Your task to perform on an android device: open app "Life360: Find Family & Friends" (install if not already installed) and enter user name: "gusts@gmail.com" and password: "assurers" Image 0: 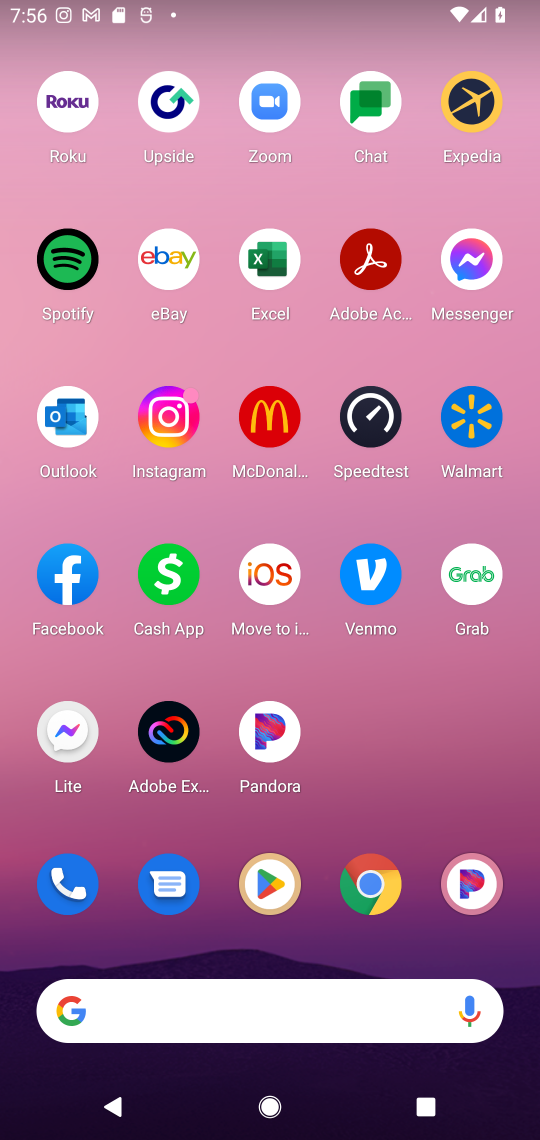
Step 0: drag from (212, 1000) to (359, 259)
Your task to perform on an android device: open app "Life360: Find Family & Friends" (install if not already installed) and enter user name: "gusts@gmail.com" and password: "assurers" Image 1: 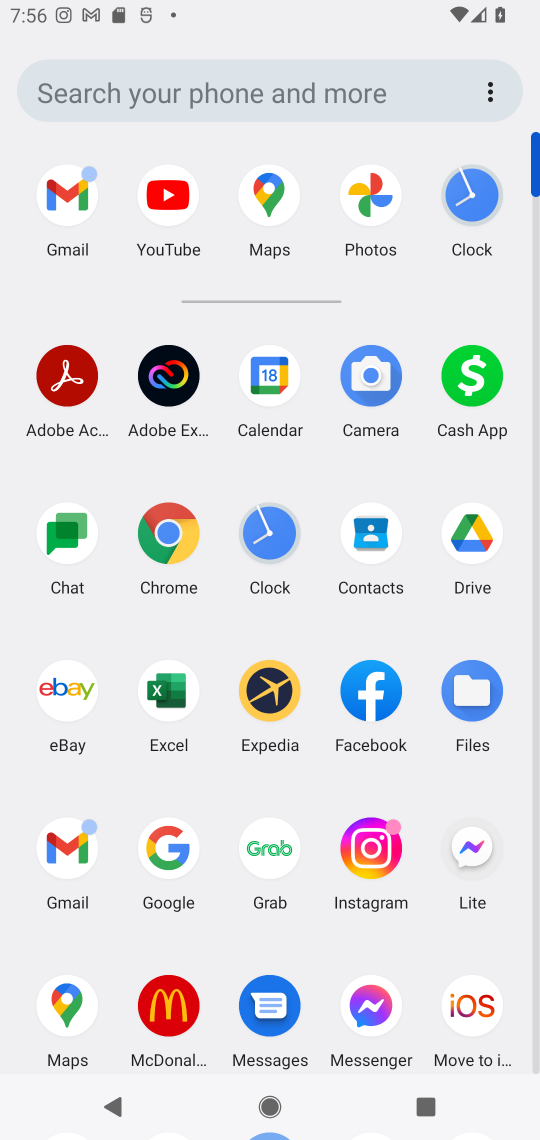
Step 1: drag from (209, 811) to (276, 337)
Your task to perform on an android device: open app "Life360: Find Family & Friends" (install if not already installed) and enter user name: "gusts@gmail.com" and password: "assurers" Image 2: 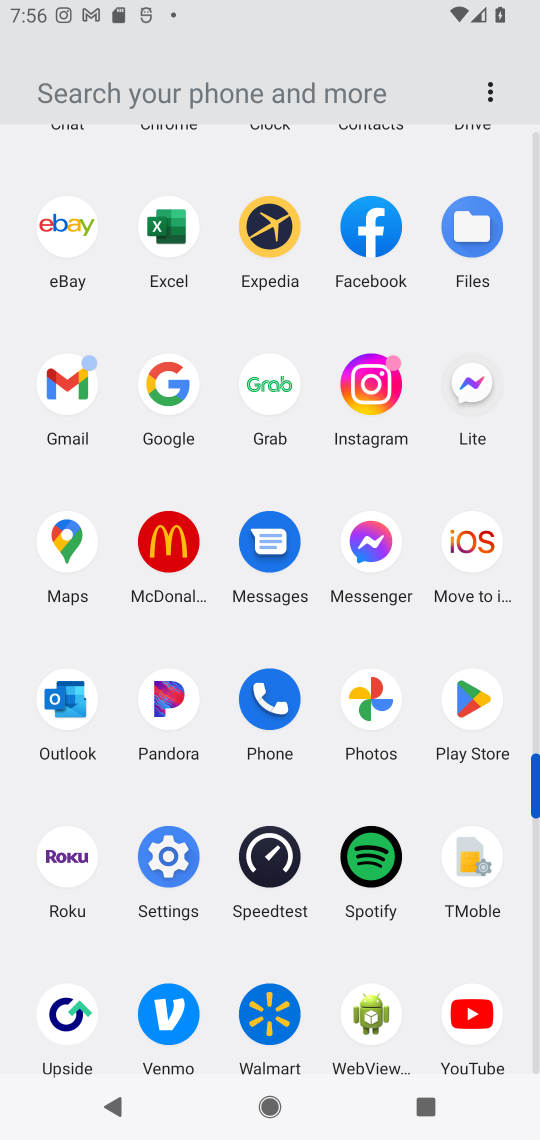
Step 2: click (475, 704)
Your task to perform on an android device: open app "Life360: Find Family & Friends" (install if not already installed) and enter user name: "gusts@gmail.com" and password: "assurers" Image 3: 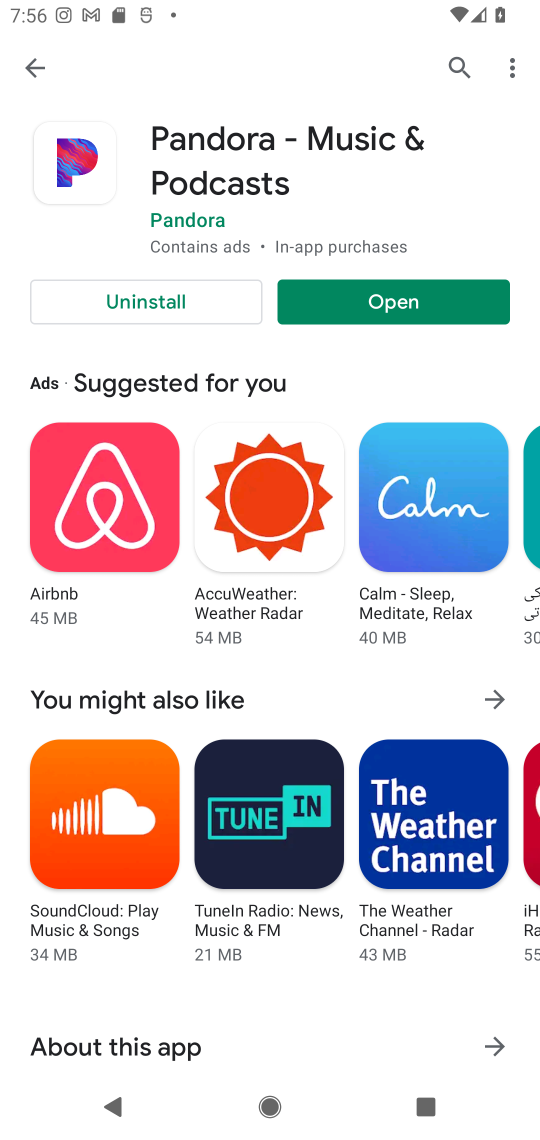
Step 3: press back button
Your task to perform on an android device: open app "Life360: Find Family & Friends" (install if not already installed) and enter user name: "gusts@gmail.com" and password: "assurers" Image 4: 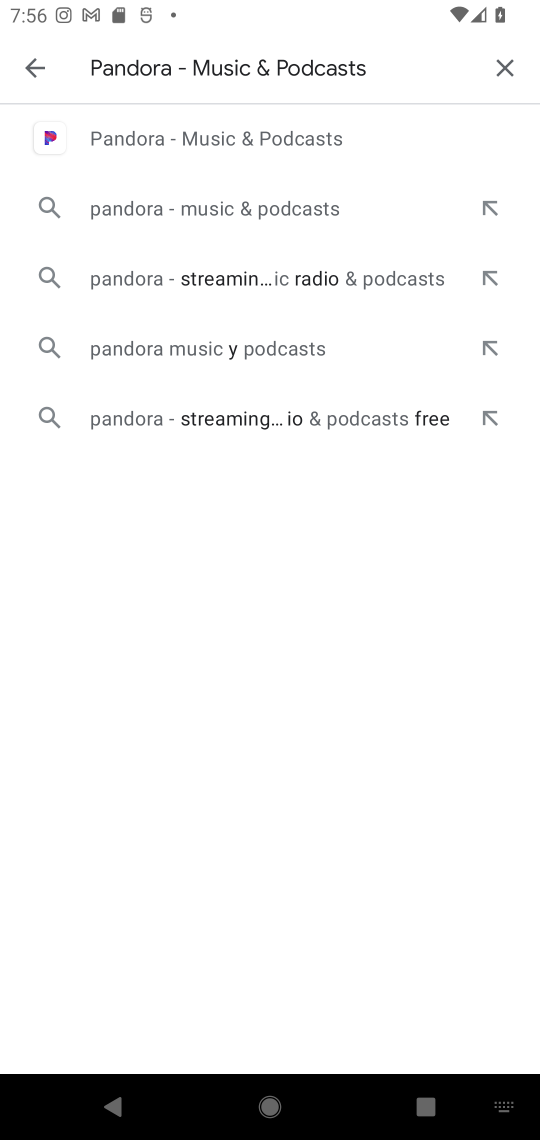
Step 4: press back button
Your task to perform on an android device: open app "Life360: Find Family & Friends" (install if not already installed) and enter user name: "gusts@gmail.com" and password: "assurers" Image 5: 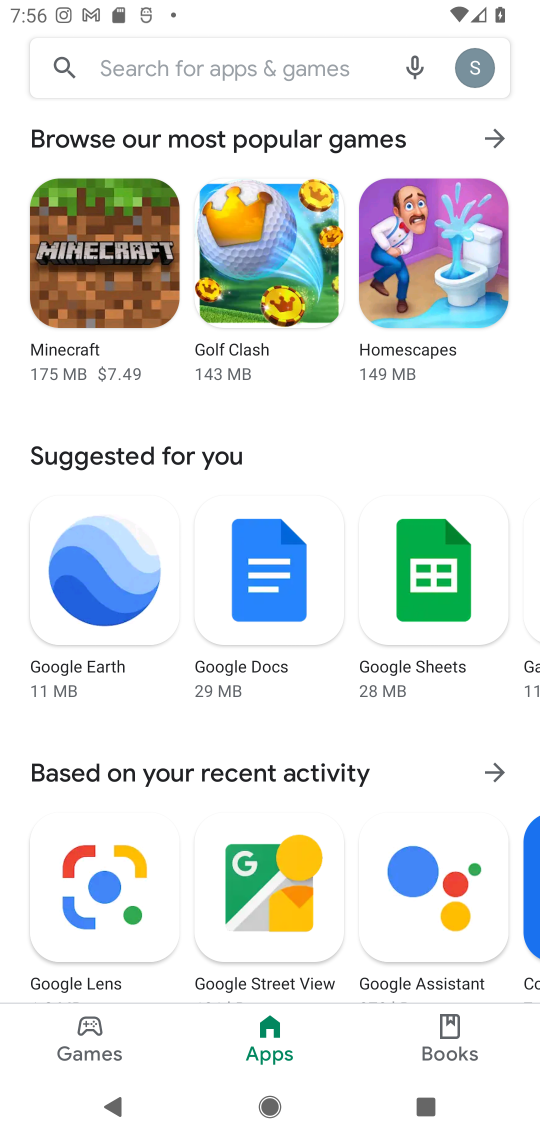
Step 5: click (263, 70)
Your task to perform on an android device: open app "Life360: Find Family & Friends" (install if not already installed) and enter user name: "gusts@gmail.com" and password: "assurers" Image 6: 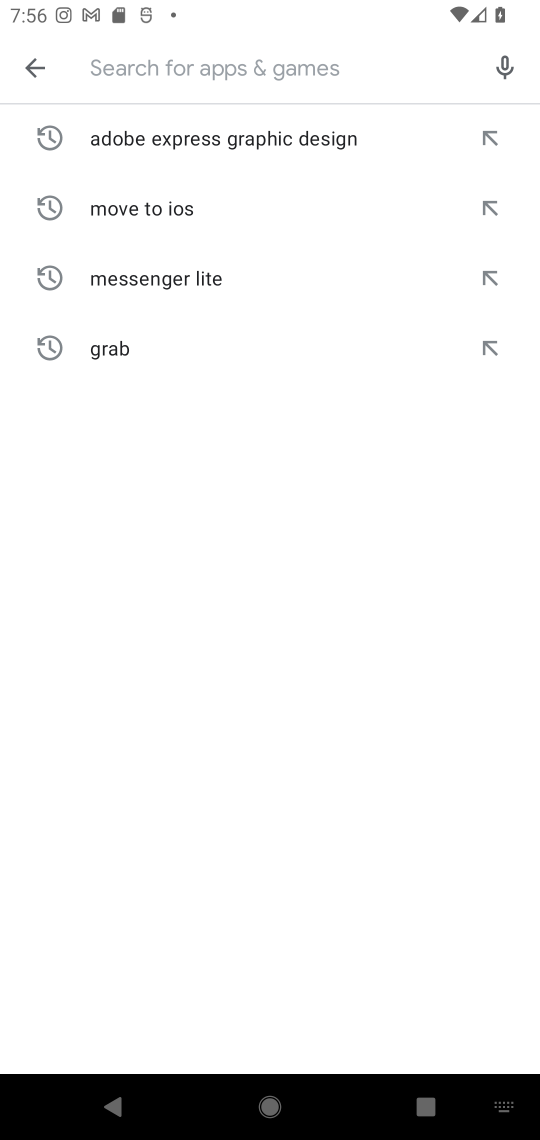
Step 6: type "Life360: Find Family & Friends"
Your task to perform on an android device: open app "Life360: Find Family & Friends" (install if not already installed) and enter user name: "gusts@gmail.com" and password: "assurers" Image 7: 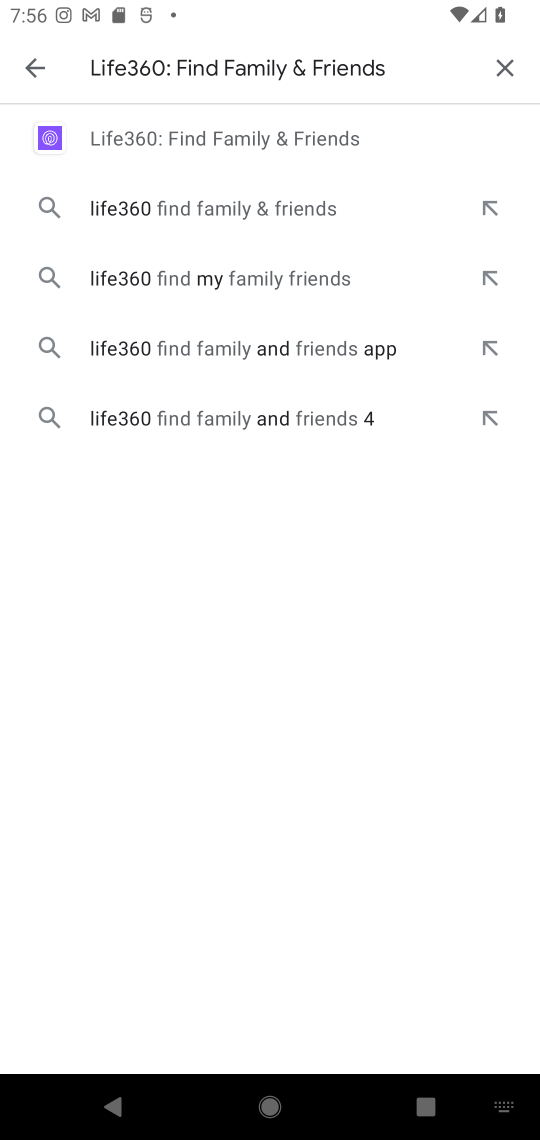
Step 7: click (286, 139)
Your task to perform on an android device: open app "Life360: Find Family & Friends" (install if not already installed) and enter user name: "gusts@gmail.com" and password: "assurers" Image 8: 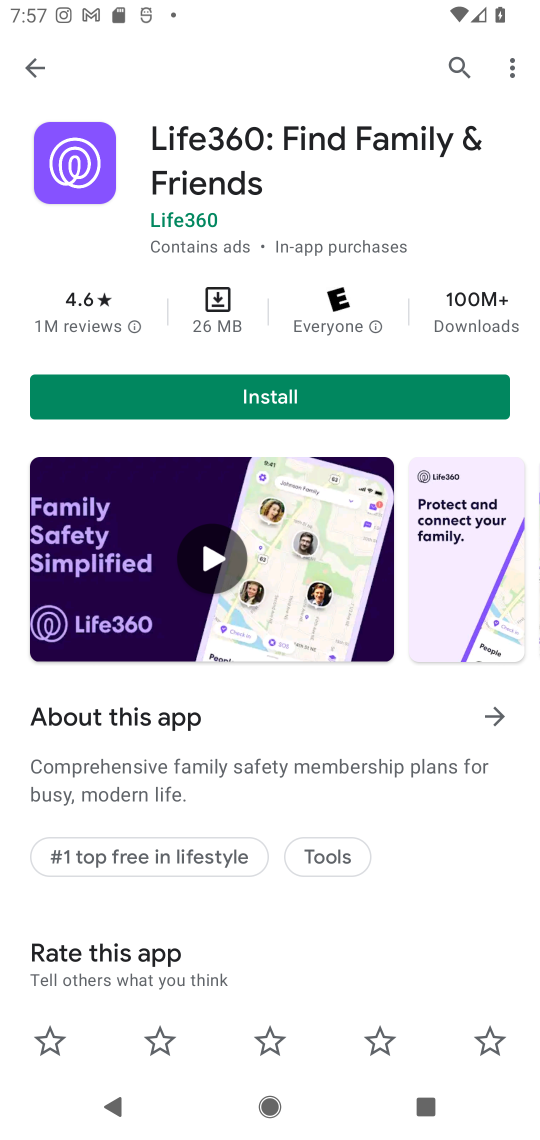
Step 8: click (233, 393)
Your task to perform on an android device: open app "Life360: Find Family & Friends" (install if not already installed) and enter user name: "gusts@gmail.com" and password: "assurers" Image 9: 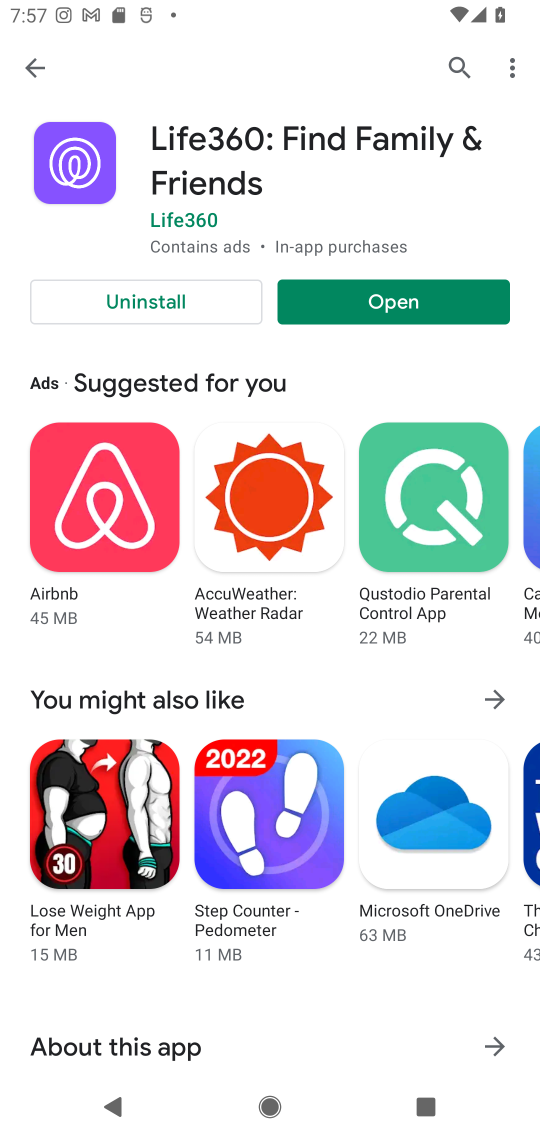
Step 9: click (393, 301)
Your task to perform on an android device: open app "Life360: Find Family & Friends" (install if not already installed) and enter user name: "gusts@gmail.com" and password: "assurers" Image 10: 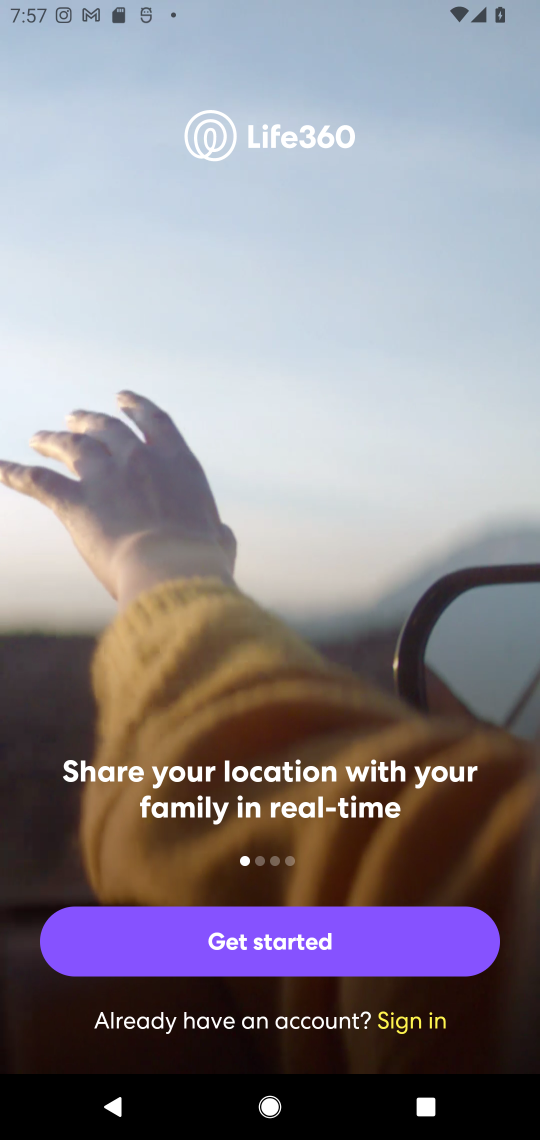
Step 10: click (401, 1020)
Your task to perform on an android device: open app "Life360: Find Family & Friends" (install if not already installed) and enter user name: "gusts@gmail.com" and password: "assurers" Image 11: 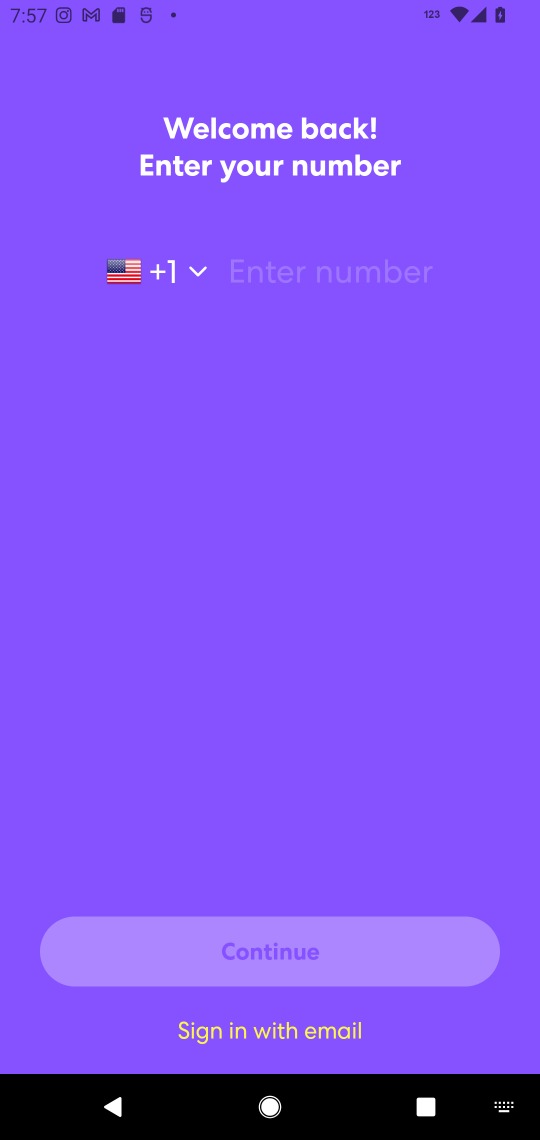
Step 11: click (318, 1031)
Your task to perform on an android device: open app "Life360: Find Family & Friends" (install if not already installed) and enter user name: "gusts@gmail.com" and password: "assurers" Image 12: 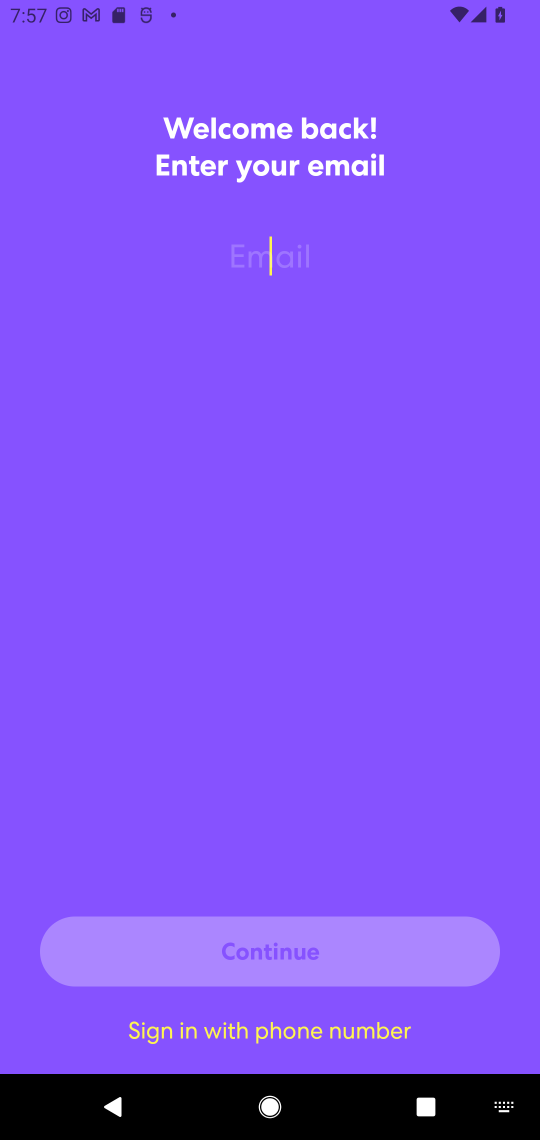
Step 12: type "gusts@gmail.com"
Your task to perform on an android device: open app "Life360: Find Family & Friends" (install if not already installed) and enter user name: "gusts@gmail.com" and password: "assurers" Image 13: 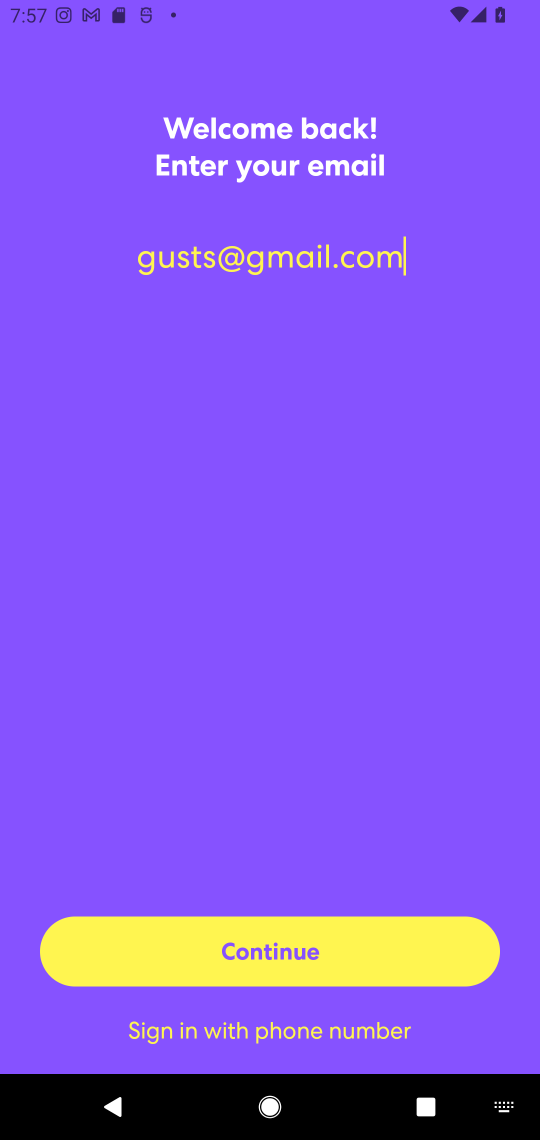
Step 13: click (325, 941)
Your task to perform on an android device: open app "Life360: Find Family & Friends" (install if not already installed) and enter user name: "gusts@gmail.com" and password: "assurers" Image 14: 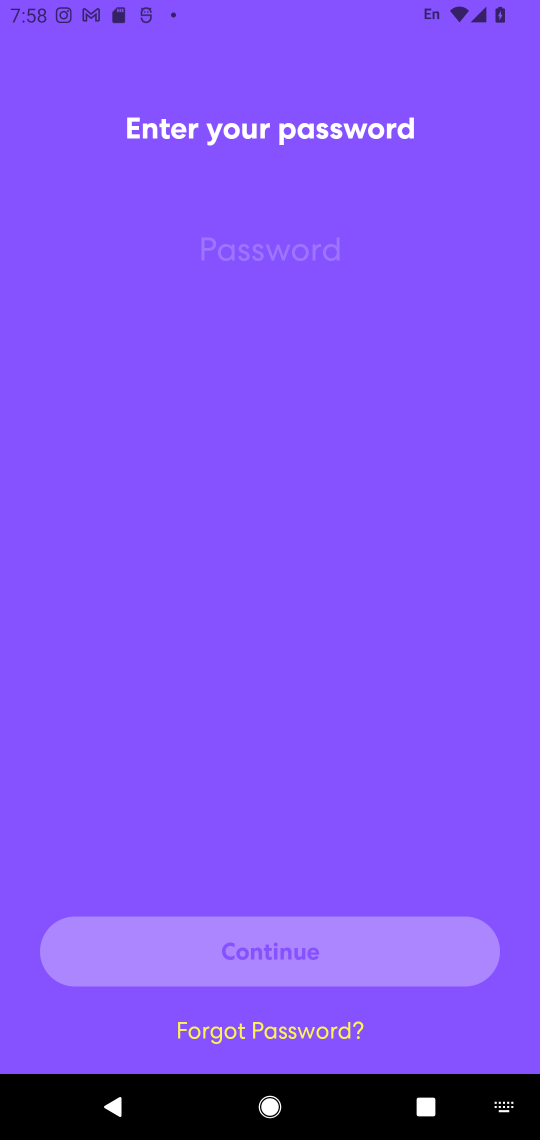
Step 14: type "assurers"
Your task to perform on an android device: open app "Life360: Find Family & Friends" (install if not already installed) and enter user name: "gusts@gmail.com" and password: "assurers" Image 15: 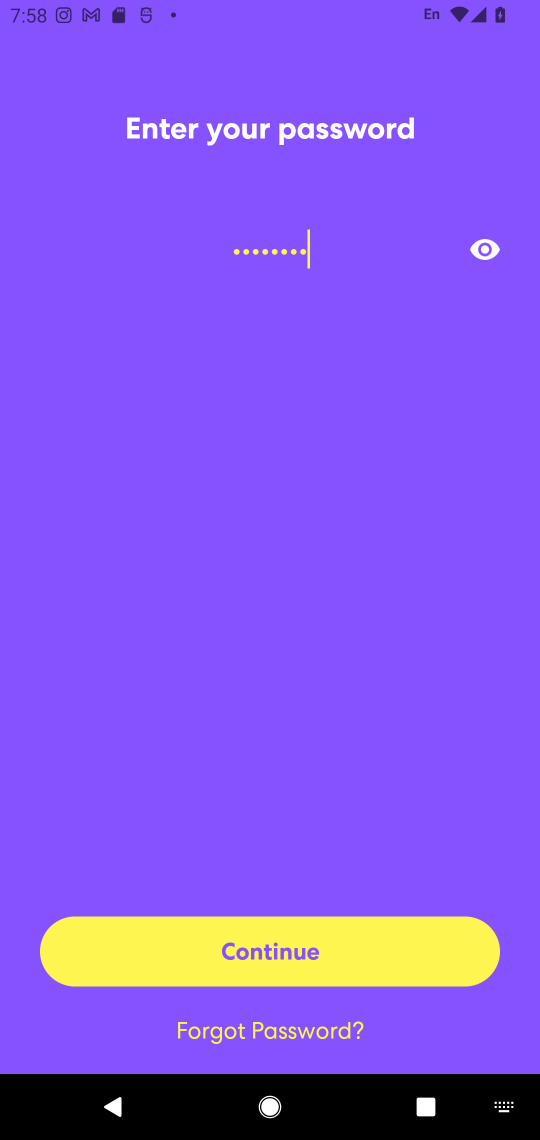
Step 15: task complete